Your task to perform on an android device: Search for sushi restaurants on Maps Image 0: 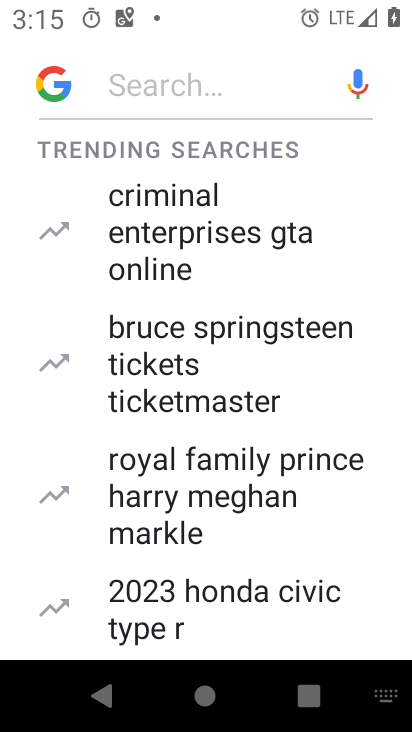
Step 0: press home button
Your task to perform on an android device: Search for sushi restaurants on Maps Image 1: 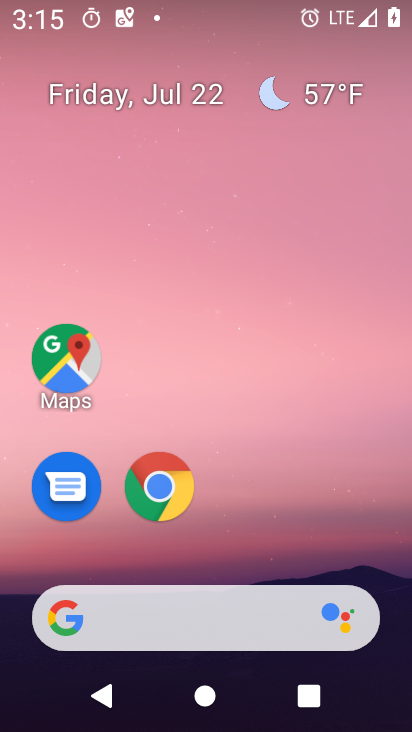
Step 1: drag from (392, 552) to (376, 200)
Your task to perform on an android device: Search for sushi restaurants on Maps Image 2: 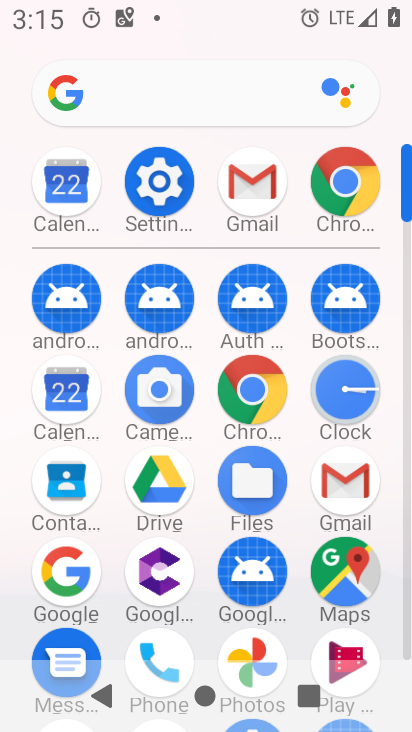
Step 2: click (349, 571)
Your task to perform on an android device: Search for sushi restaurants on Maps Image 3: 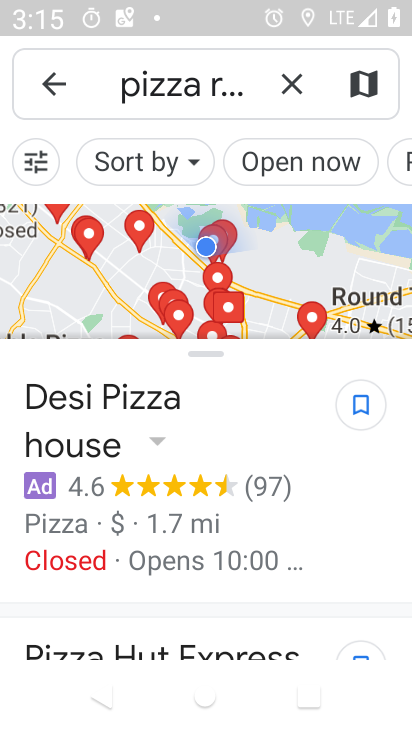
Step 3: press back button
Your task to perform on an android device: Search for sushi restaurants on Maps Image 4: 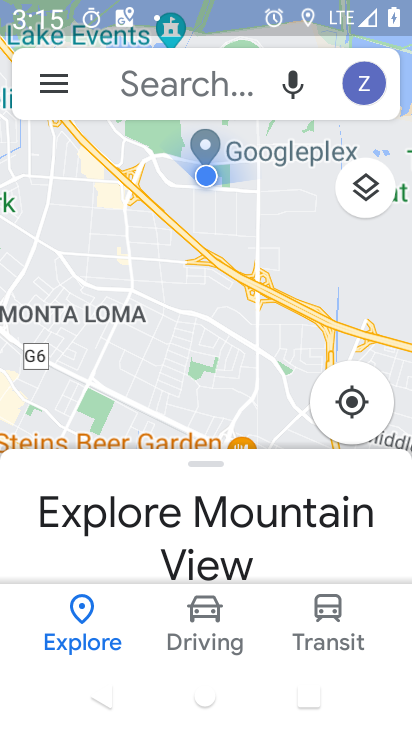
Step 4: click (213, 92)
Your task to perform on an android device: Search for sushi restaurants on Maps Image 5: 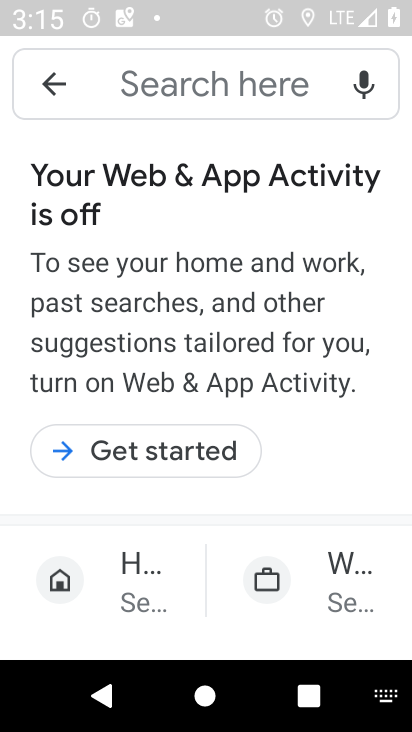
Step 5: type "sushi restaurants"
Your task to perform on an android device: Search for sushi restaurants on Maps Image 6: 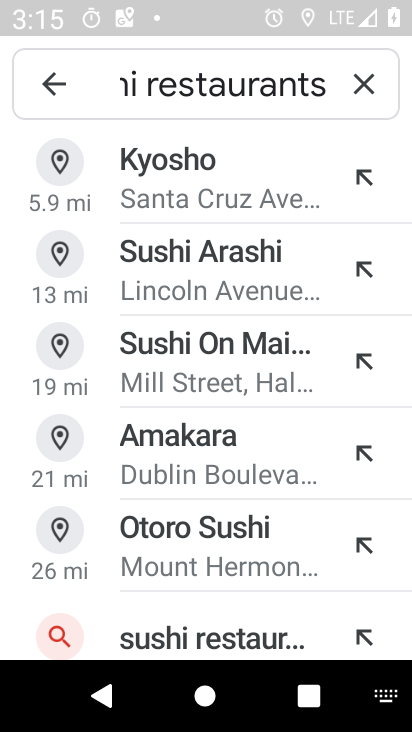
Step 6: click (284, 640)
Your task to perform on an android device: Search for sushi restaurants on Maps Image 7: 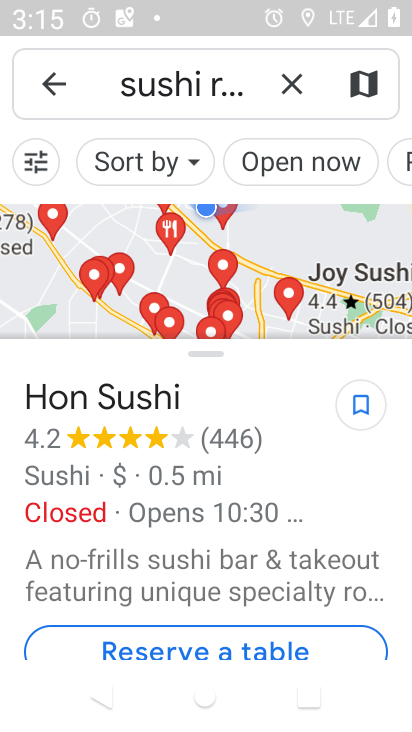
Step 7: task complete